Your task to perform on an android device: open app "Truecaller" Image 0: 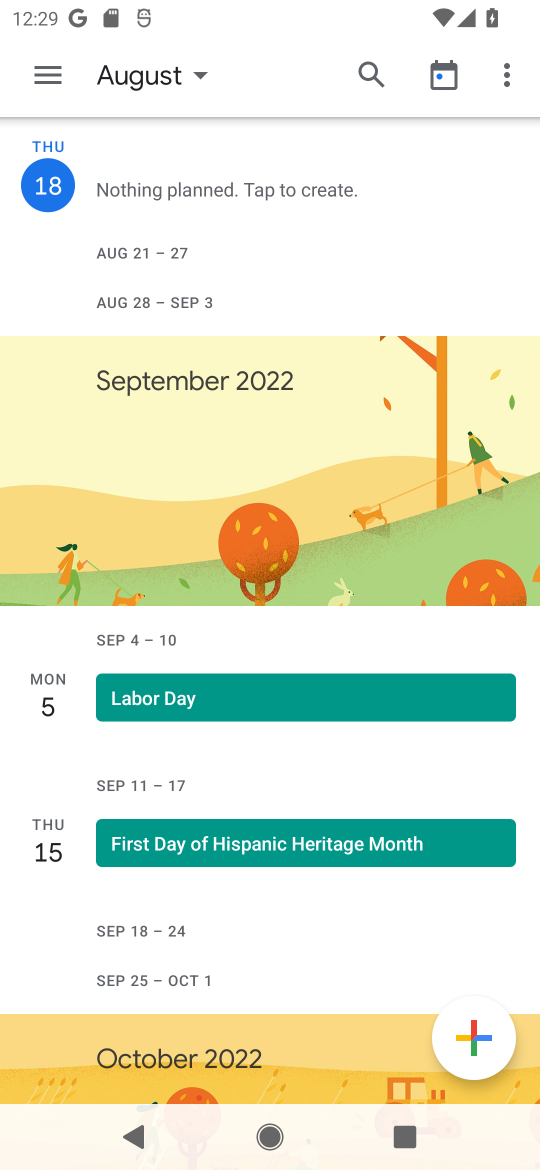
Step 0: press back button
Your task to perform on an android device: open app "Truecaller" Image 1: 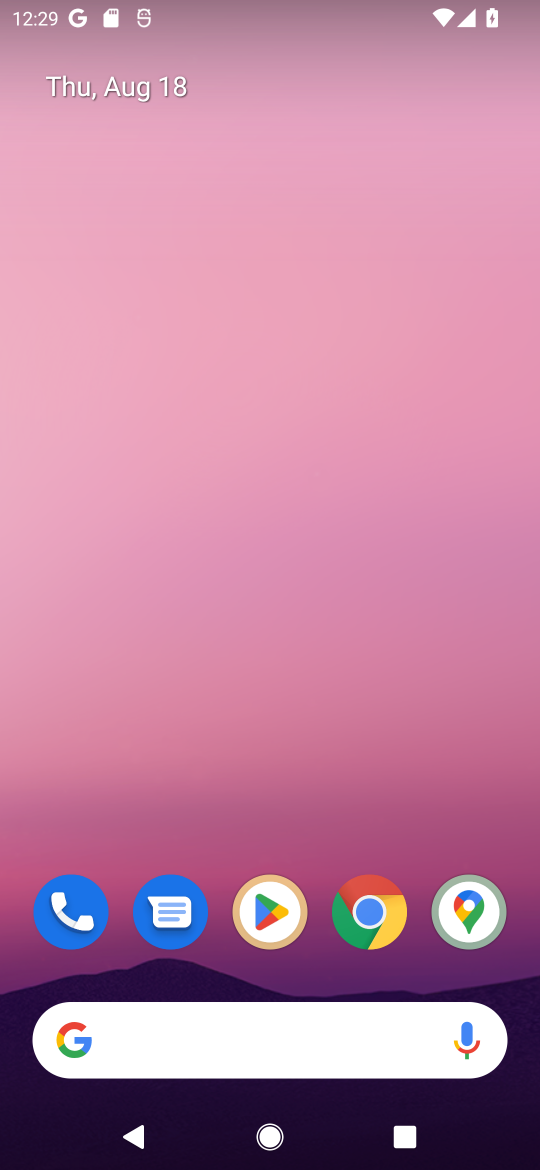
Step 1: click (274, 915)
Your task to perform on an android device: open app "Truecaller" Image 2: 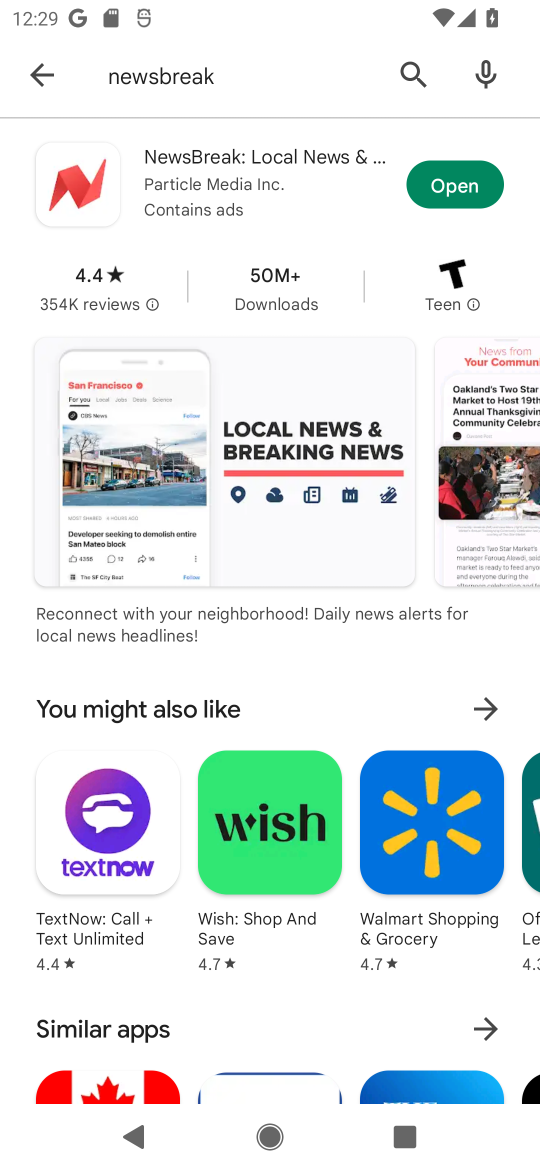
Step 2: click (409, 71)
Your task to perform on an android device: open app "Truecaller" Image 3: 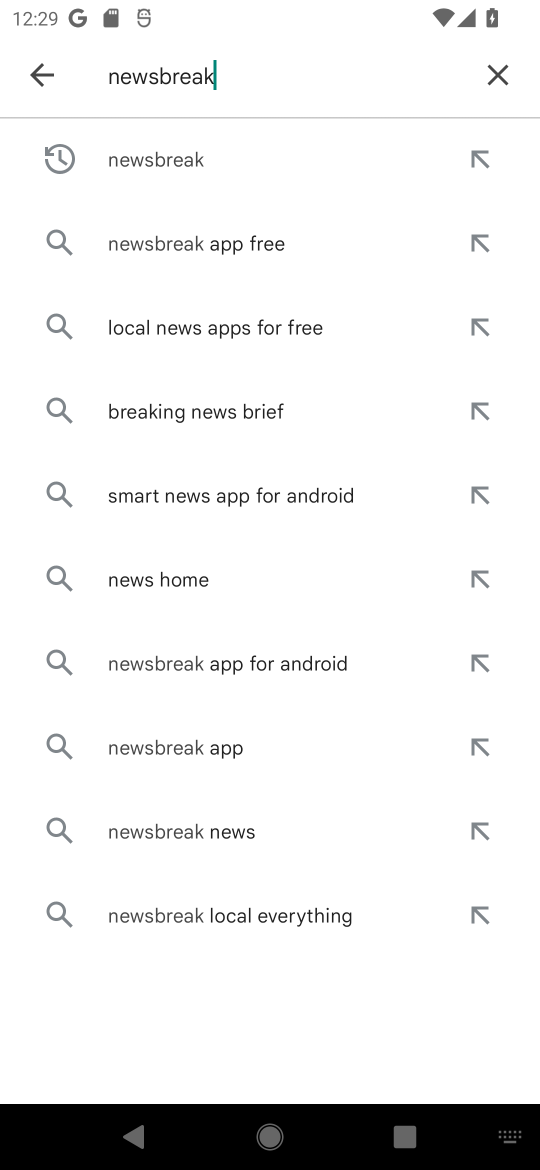
Step 3: click (496, 76)
Your task to perform on an android device: open app "Truecaller" Image 4: 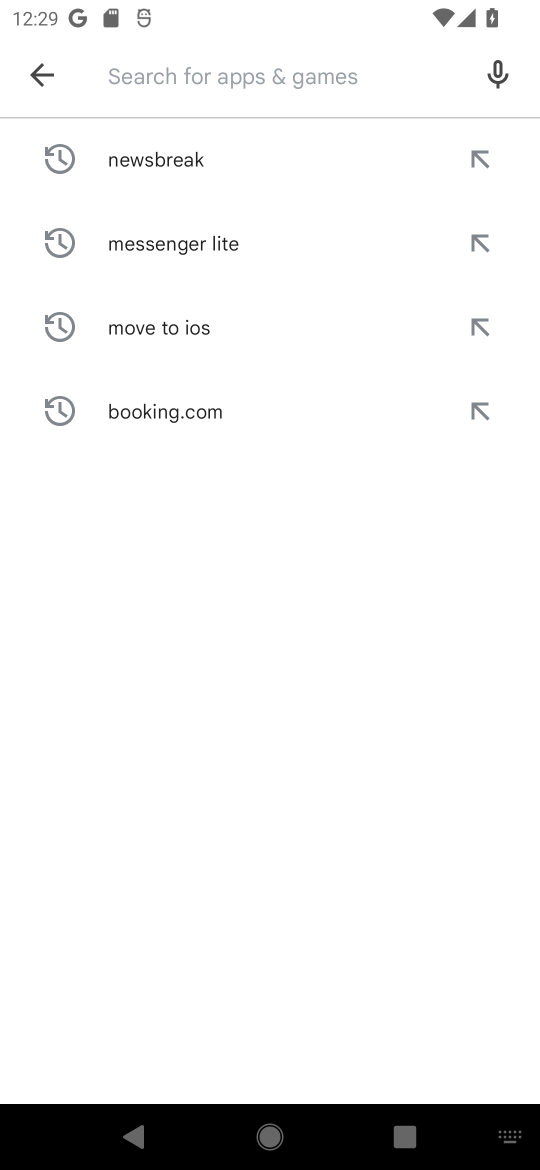
Step 4: click (169, 75)
Your task to perform on an android device: open app "Truecaller" Image 5: 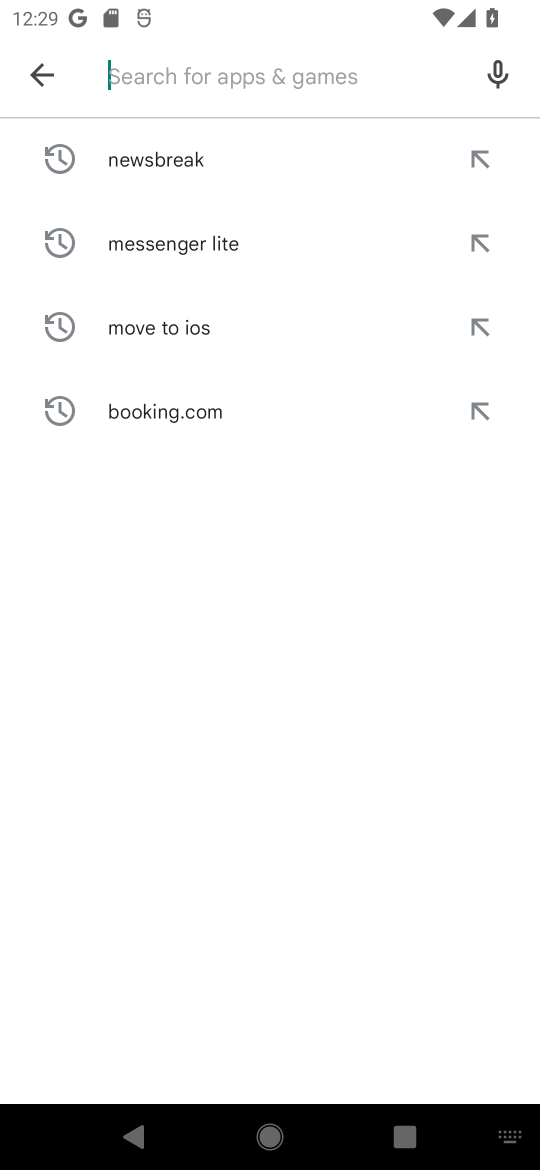
Step 5: type "Truecaller"
Your task to perform on an android device: open app "Truecaller" Image 6: 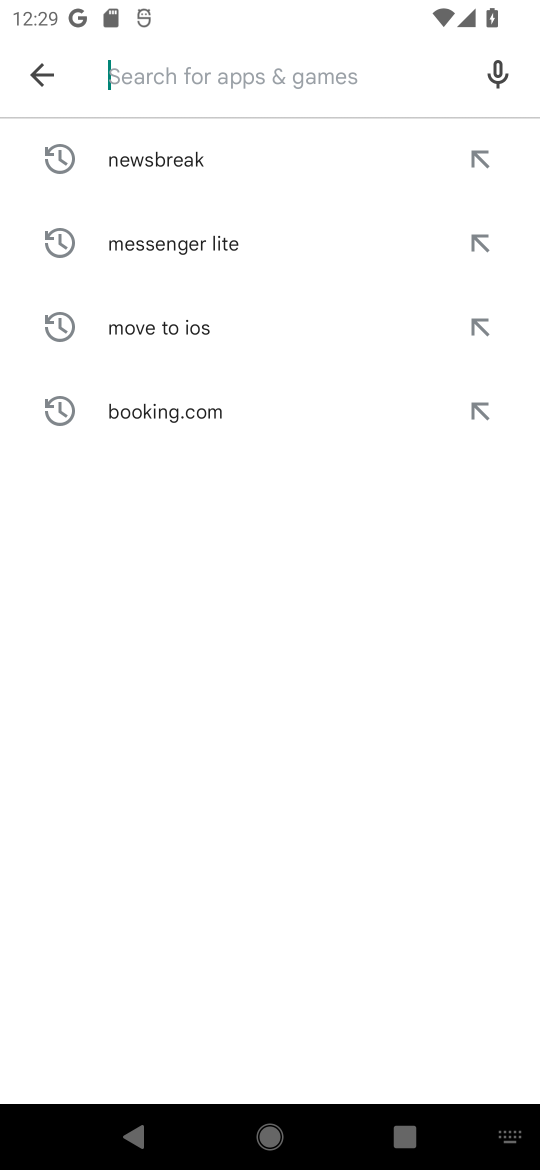
Step 6: click (365, 728)
Your task to perform on an android device: open app "Truecaller" Image 7: 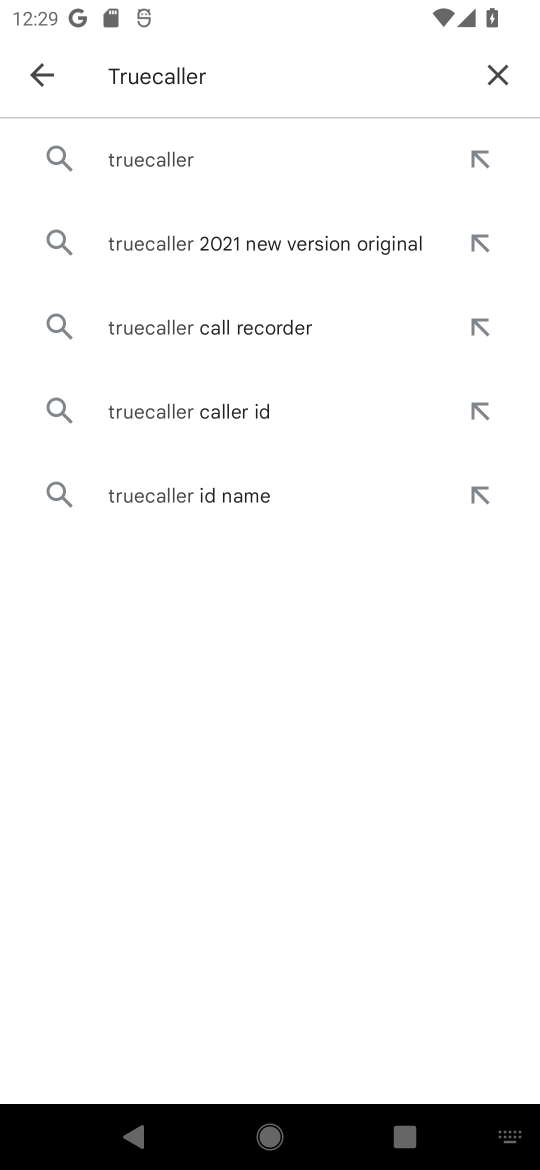
Step 7: click (145, 153)
Your task to perform on an android device: open app "Truecaller" Image 8: 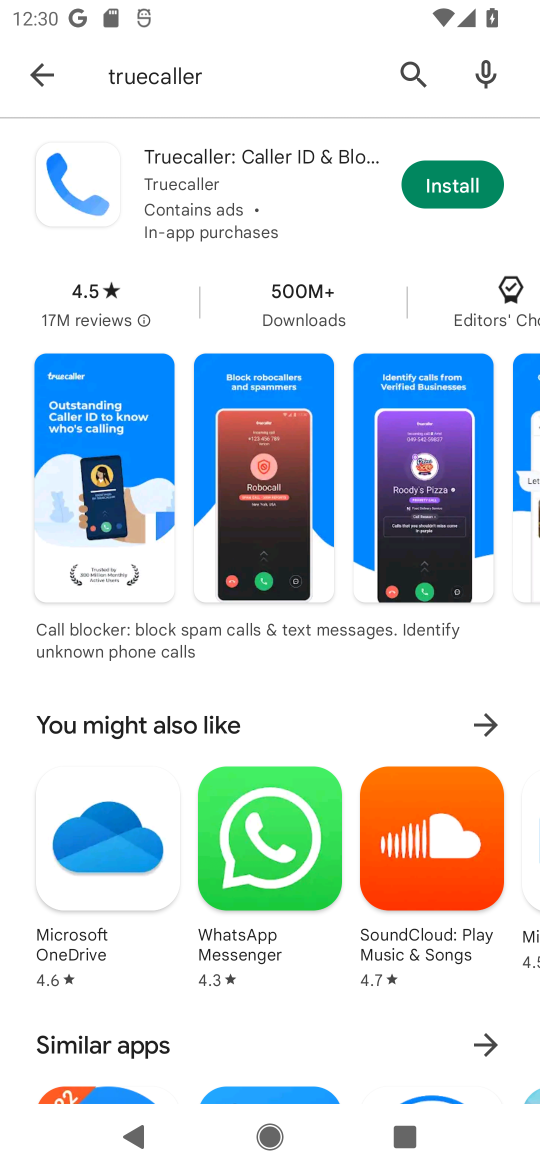
Step 8: task complete